Your task to perform on an android device: change the upload size in google photos Image 0: 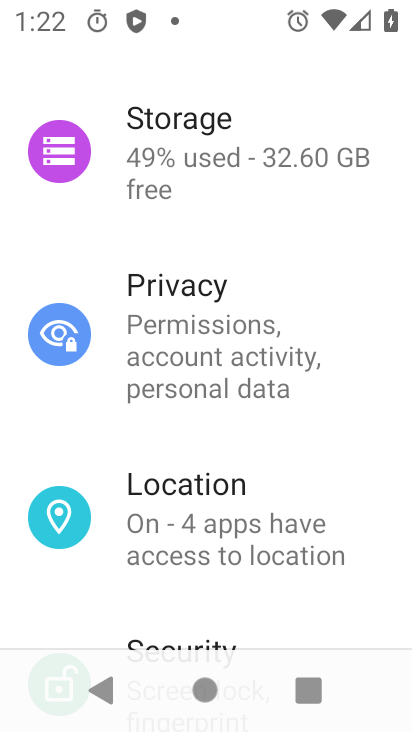
Step 0: press home button
Your task to perform on an android device: change the upload size in google photos Image 1: 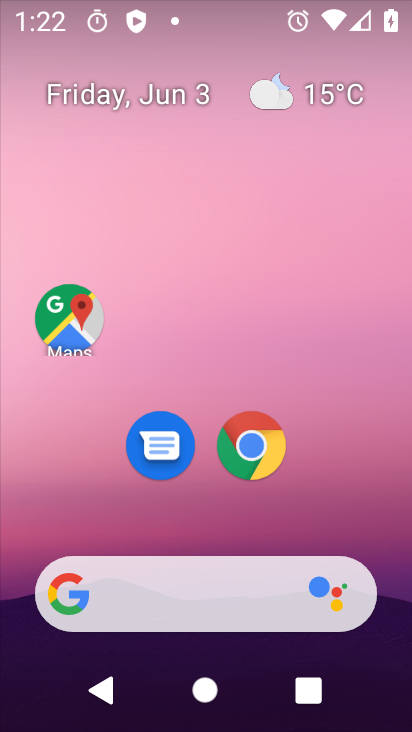
Step 1: drag from (208, 518) to (214, 99)
Your task to perform on an android device: change the upload size in google photos Image 2: 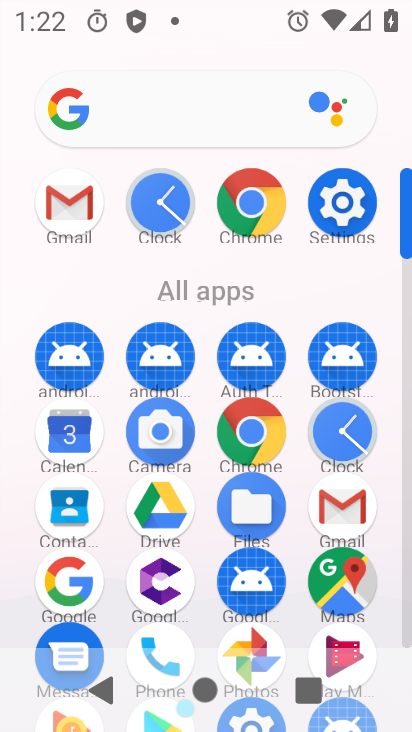
Step 2: click (254, 634)
Your task to perform on an android device: change the upload size in google photos Image 3: 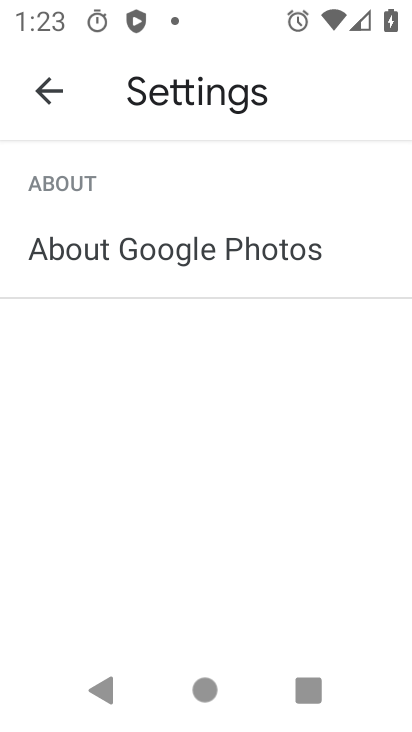
Step 3: click (30, 58)
Your task to perform on an android device: change the upload size in google photos Image 4: 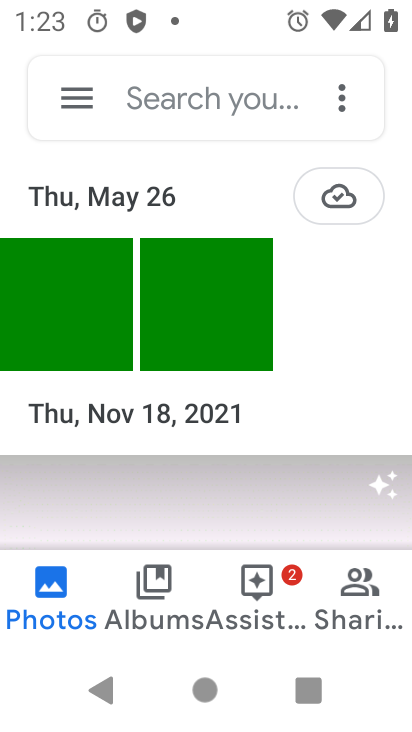
Step 4: click (77, 106)
Your task to perform on an android device: change the upload size in google photos Image 5: 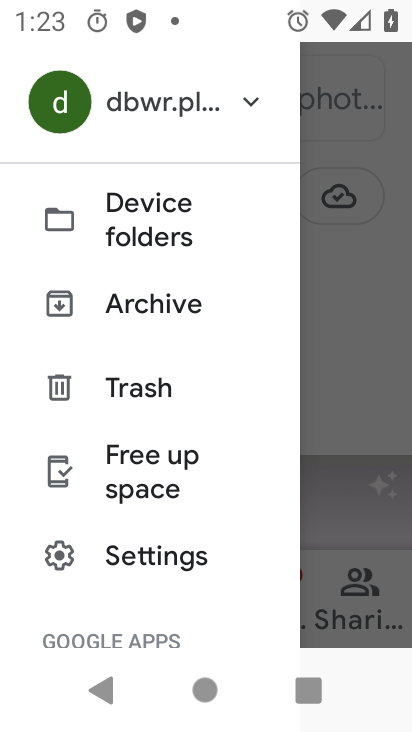
Step 5: click (98, 556)
Your task to perform on an android device: change the upload size in google photos Image 6: 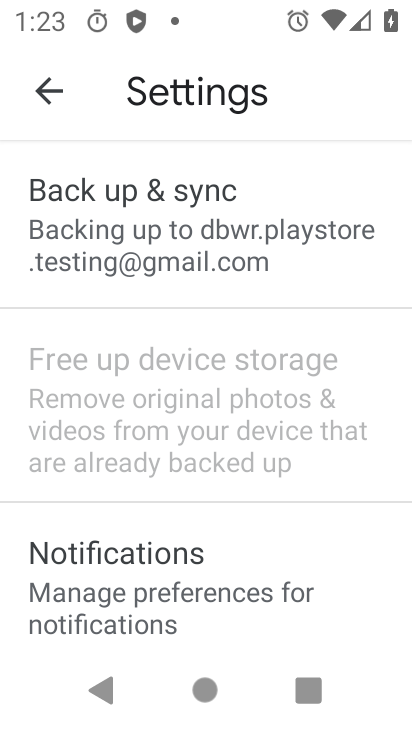
Step 6: drag from (69, 596) to (199, 85)
Your task to perform on an android device: change the upload size in google photos Image 7: 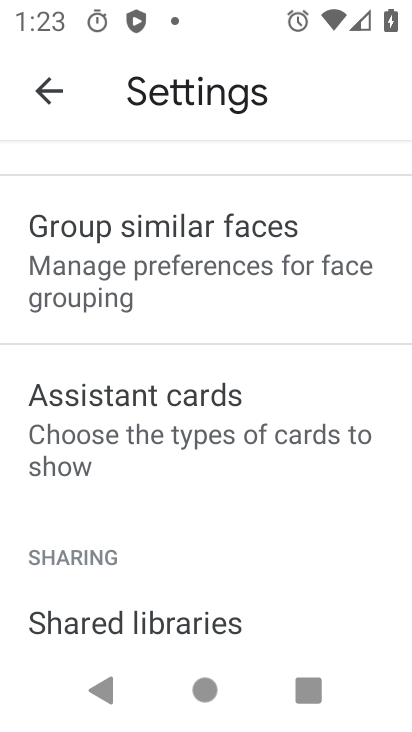
Step 7: drag from (113, 539) to (165, 7)
Your task to perform on an android device: change the upload size in google photos Image 8: 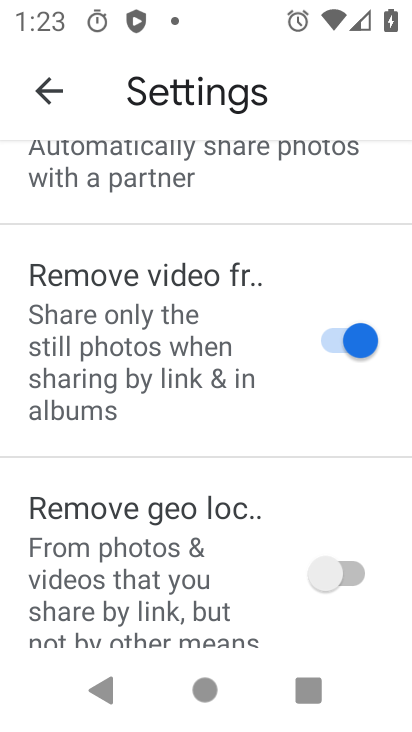
Step 8: drag from (110, 512) to (158, 59)
Your task to perform on an android device: change the upload size in google photos Image 9: 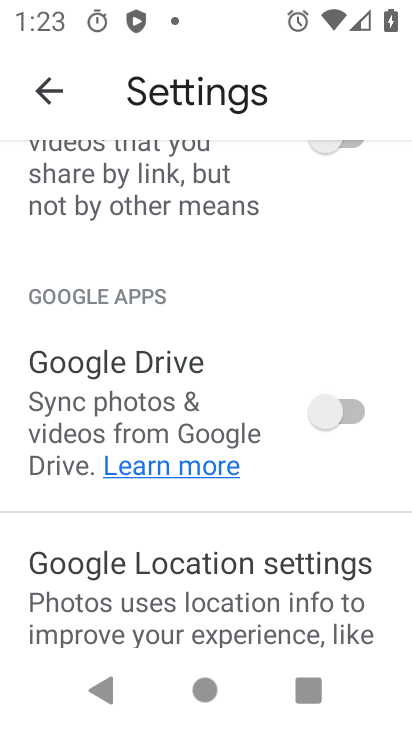
Step 9: drag from (224, 228) to (192, 630)
Your task to perform on an android device: change the upload size in google photos Image 10: 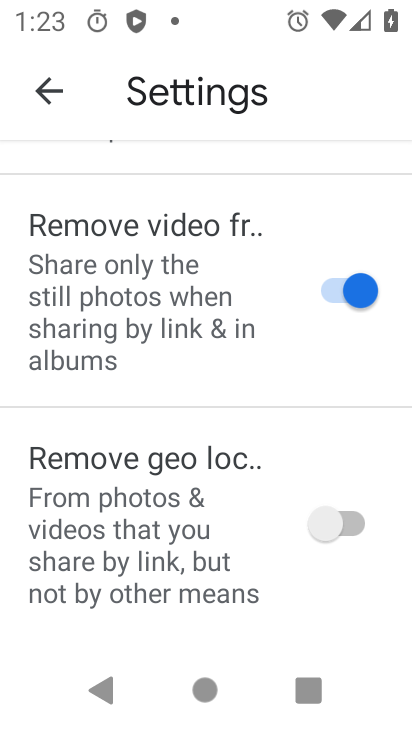
Step 10: drag from (208, 242) to (203, 624)
Your task to perform on an android device: change the upload size in google photos Image 11: 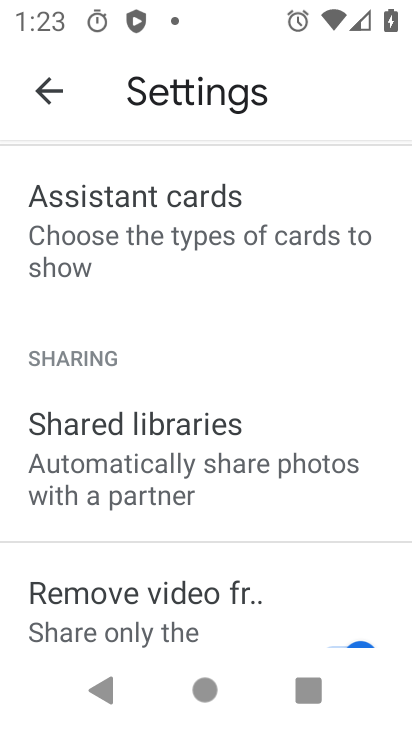
Step 11: drag from (246, 237) to (268, 630)
Your task to perform on an android device: change the upload size in google photos Image 12: 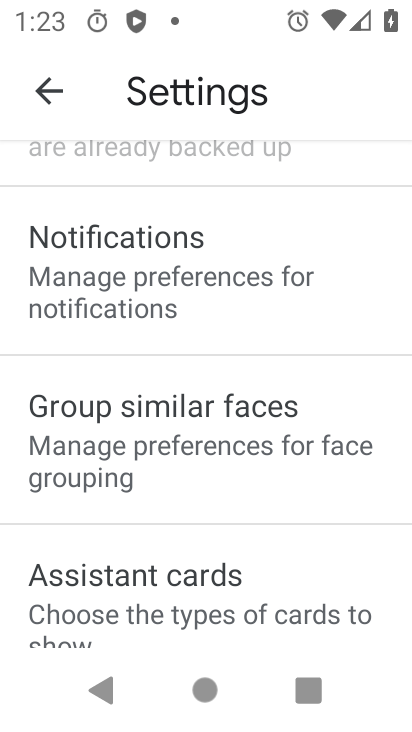
Step 12: drag from (238, 182) to (220, 596)
Your task to perform on an android device: change the upload size in google photos Image 13: 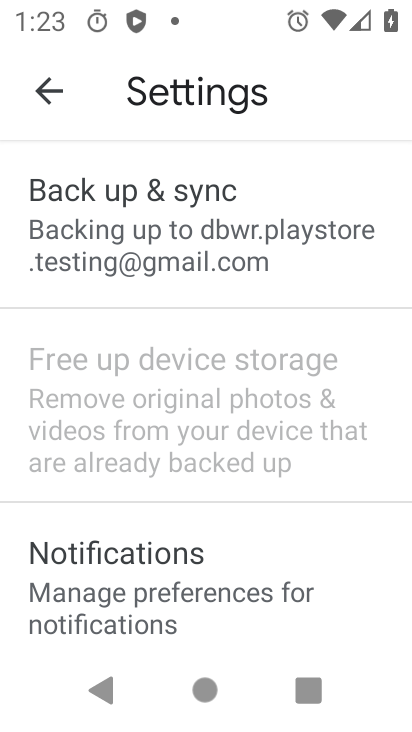
Step 13: drag from (138, 209) to (157, 586)
Your task to perform on an android device: change the upload size in google photos Image 14: 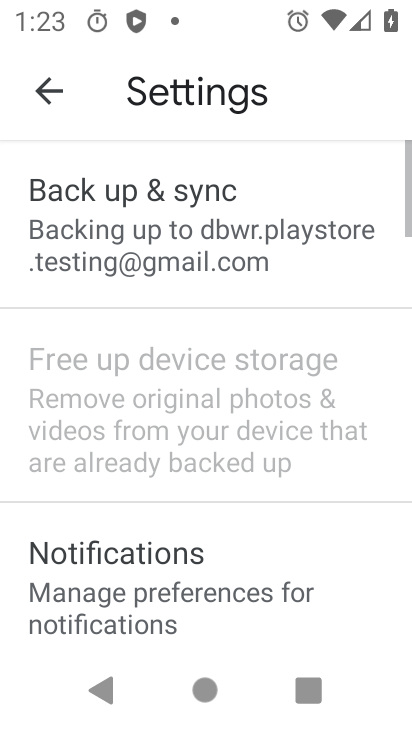
Step 14: drag from (128, 576) to (195, 121)
Your task to perform on an android device: change the upload size in google photos Image 15: 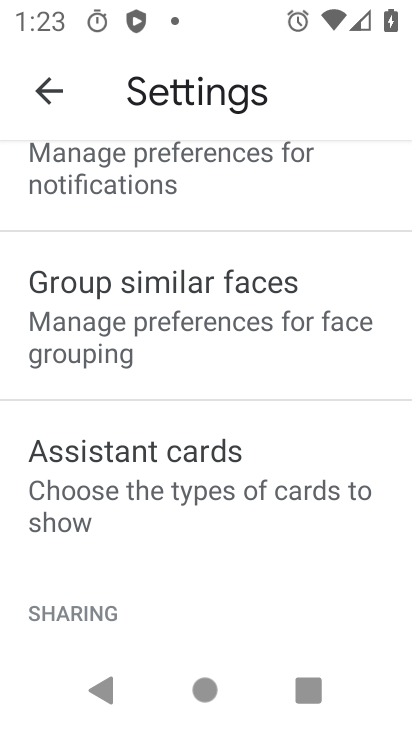
Step 15: drag from (166, 524) to (154, 220)
Your task to perform on an android device: change the upload size in google photos Image 16: 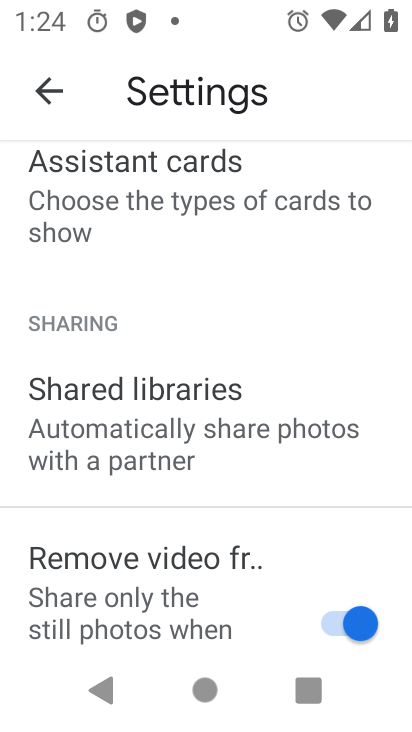
Step 16: drag from (138, 552) to (165, 256)
Your task to perform on an android device: change the upload size in google photos Image 17: 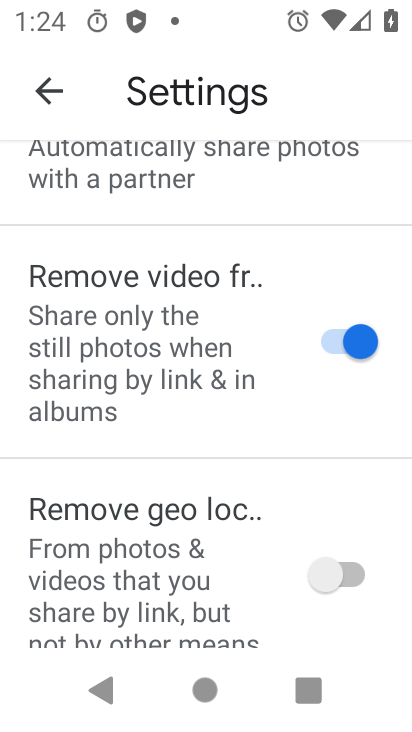
Step 17: drag from (131, 561) to (155, 226)
Your task to perform on an android device: change the upload size in google photos Image 18: 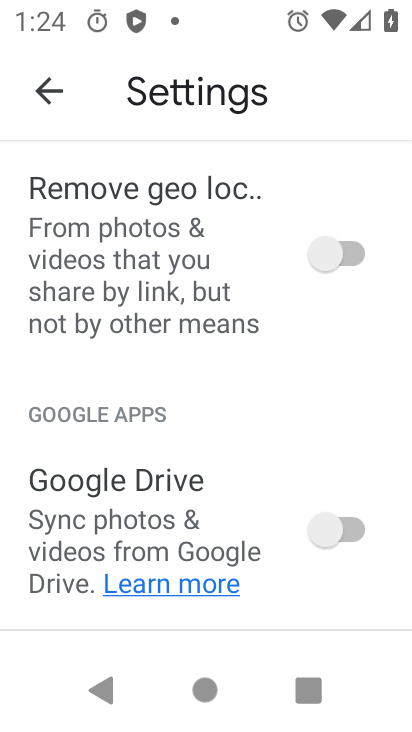
Step 18: drag from (203, 282) to (174, 709)
Your task to perform on an android device: change the upload size in google photos Image 19: 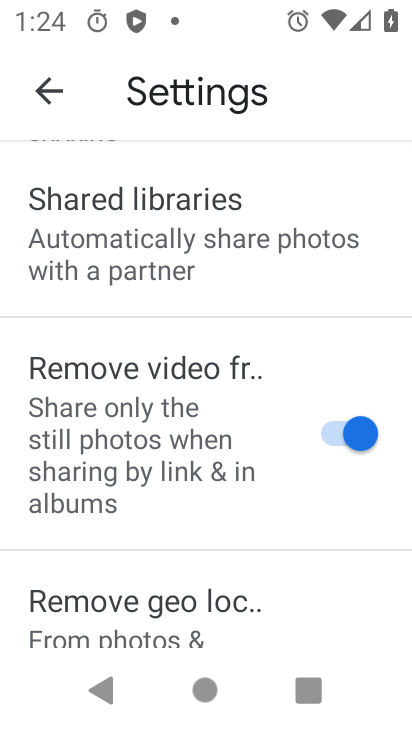
Step 19: drag from (203, 183) to (206, 627)
Your task to perform on an android device: change the upload size in google photos Image 20: 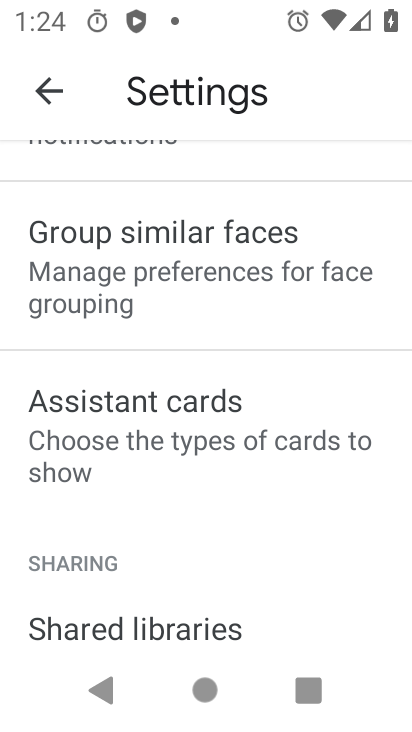
Step 20: drag from (164, 256) to (178, 665)
Your task to perform on an android device: change the upload size in google photos Image 21: 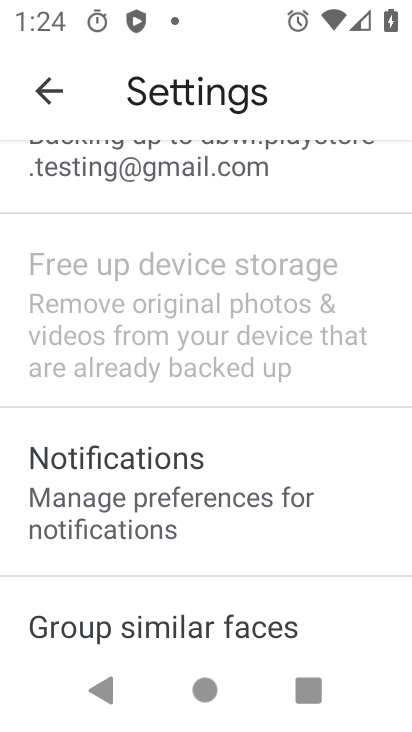
Step 21: drag from (211, 224) to (175, 690)
Your task to perform on an android device: change the upload size in google photos Image 22: 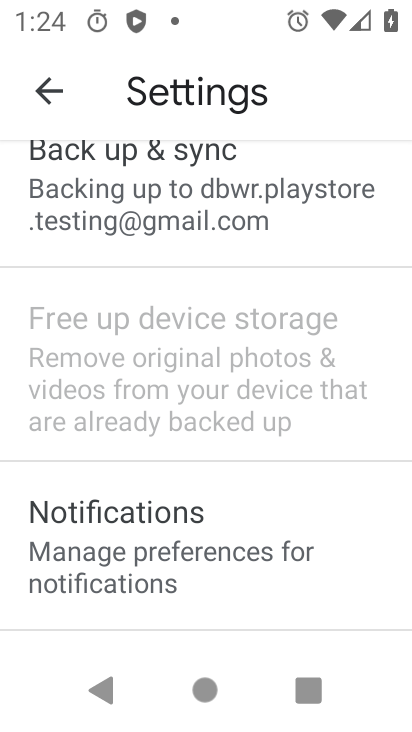
Step 22: click (124, 229)
Your task to perform on an android device: change the upload size in google photos Image 23: 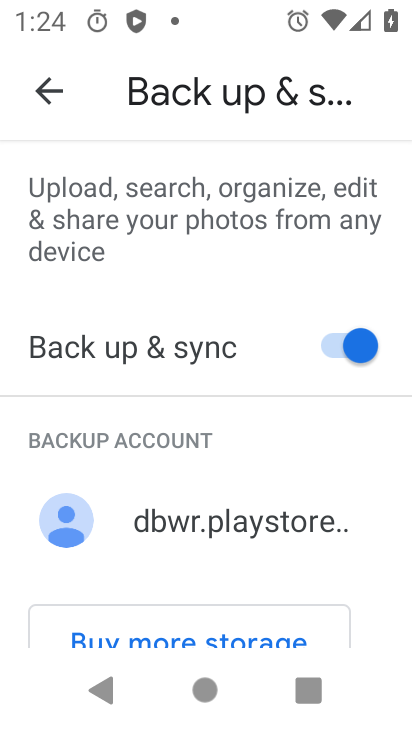
Step 23: drag from (75, 498) to (183, 177)
Your task to perform on an android device: change the upload size in google photos Image 24: 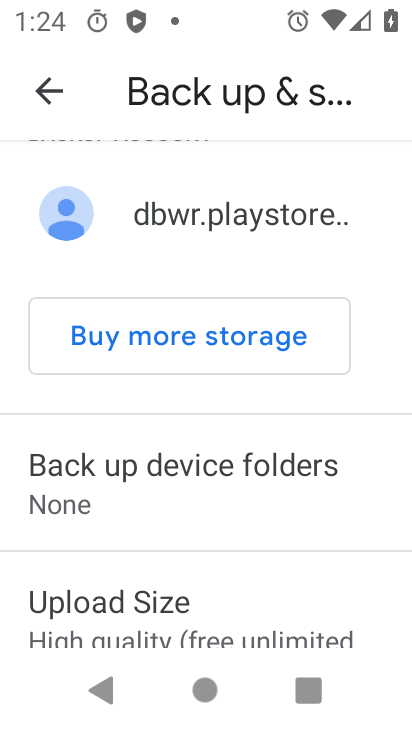
Step 24: drag from (73, 589) to (142, 275)
Your task to perform on an android device: change the upload size in google photos Image 25: 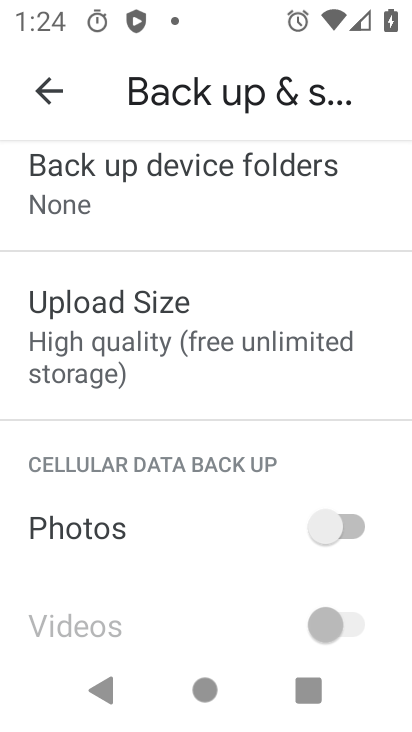
Step 25: click (188, 353)
Your task to perform on an android device: change the upload size in google photos Image 26: 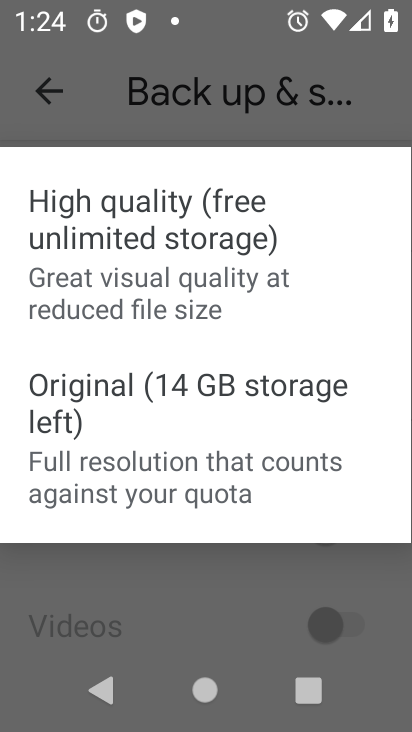
Step 26: click (131, 471)
Your task to perform on an android device: change the upload size in google photos Image 27: 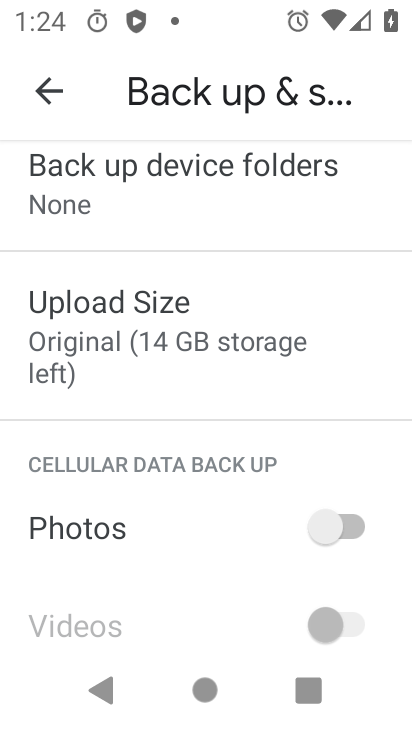
Step 27: task complete